Your task to perform on an android device: Go to display settings Image 0: 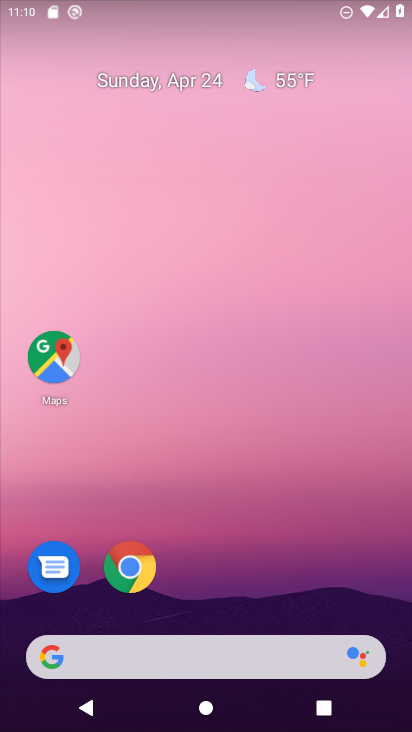
Step 0: drag from (396, 649) to (366, 137)
Your task to perform on an android device: Go to display settings Image 1: 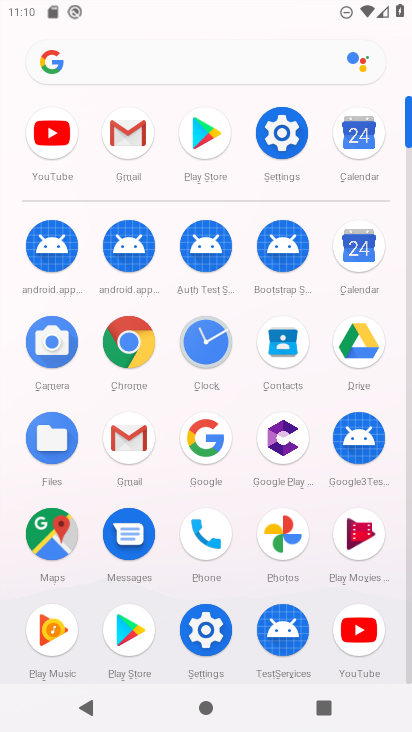
Step 1: click (276, 131)
Your task to perform on an android device: Go to display settings Image 2: 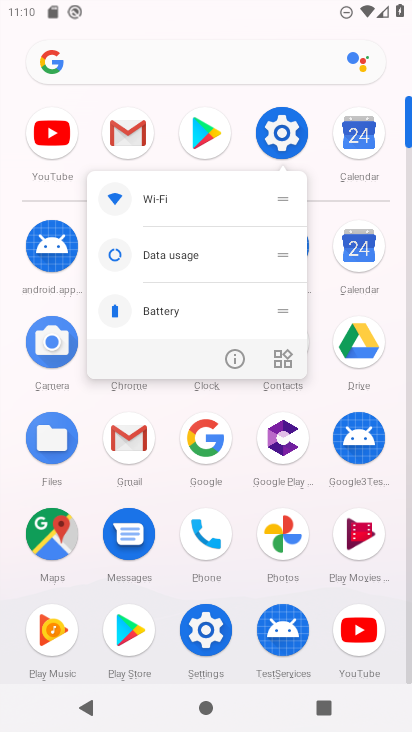
Step 2: click (275, 124)
Your task to perform on an android device: Go to display settings Image 3: 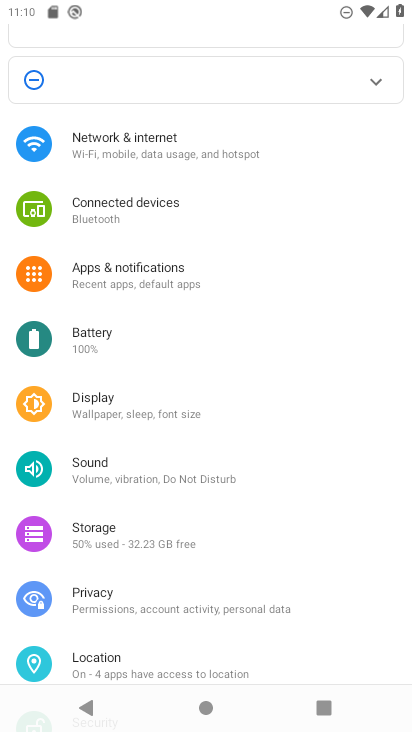
Step 3: click (76, 397)
Your task to perform on an android device: Go to display settings Image 4: 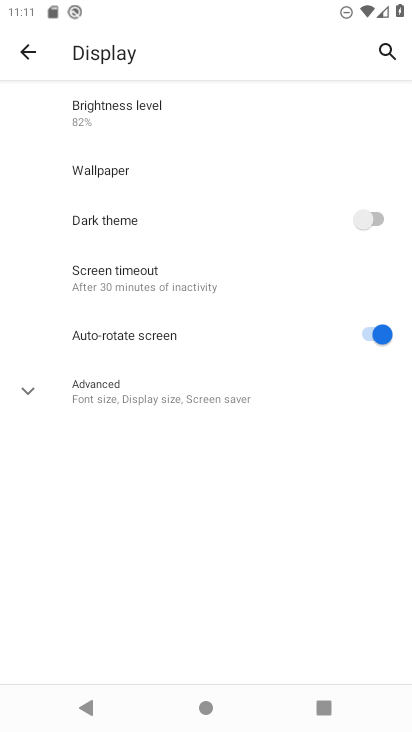
Step 4: task complete